Your task to perform on an android device: toggle improve location accuracy Image 0: 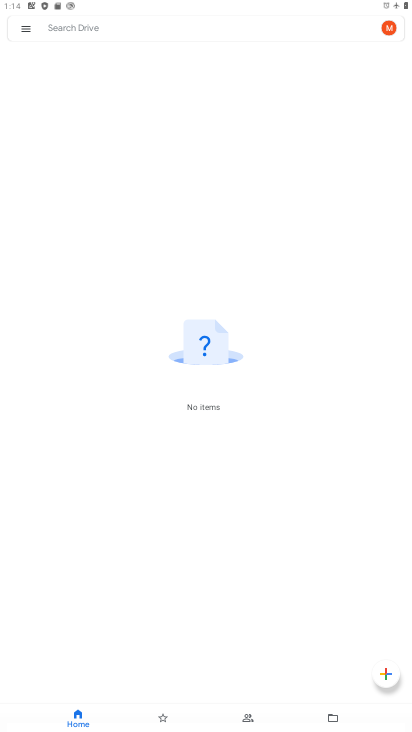
Step 0: press home button
Your task to perform on an android device: toggle improve location accuracy Image 1: 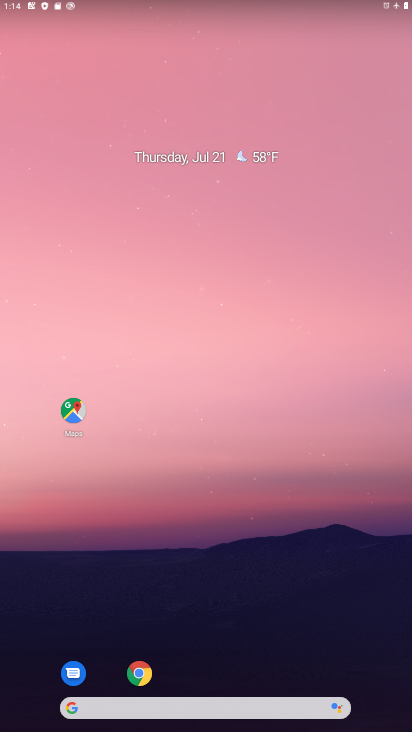
Step 1: drag from (240, 666) to (235, 200)
Your task to perform on an android device: toggle improve location accuracy Image 2: 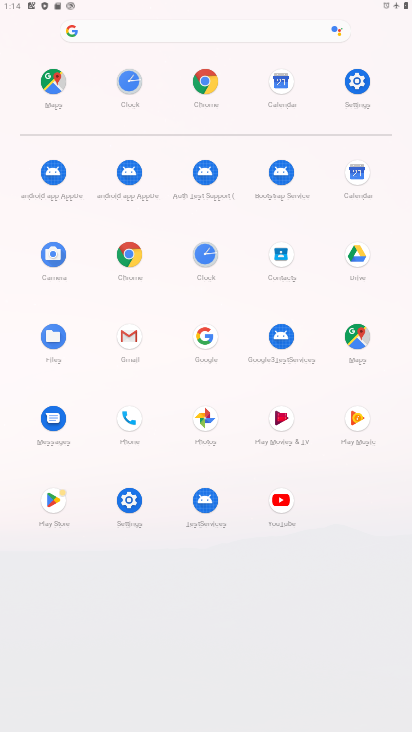
Step 2: click (355, 83)
Your task to perform on an android device: toggle improve location accuracy Image 3: 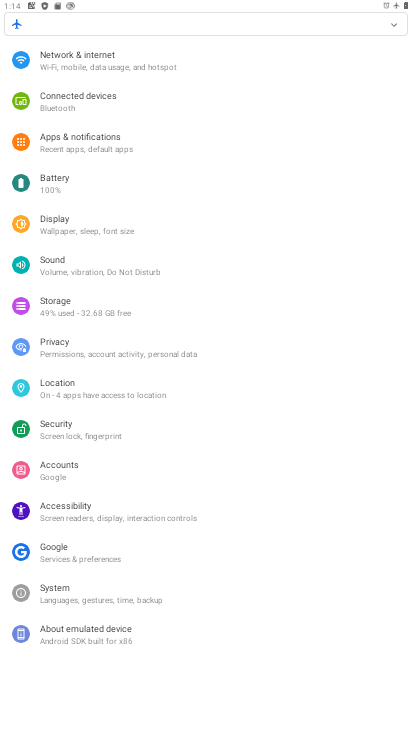
Step 3: click (105, 374)
Your task to perform on an android device: toggle improve location accuracy Image 4: 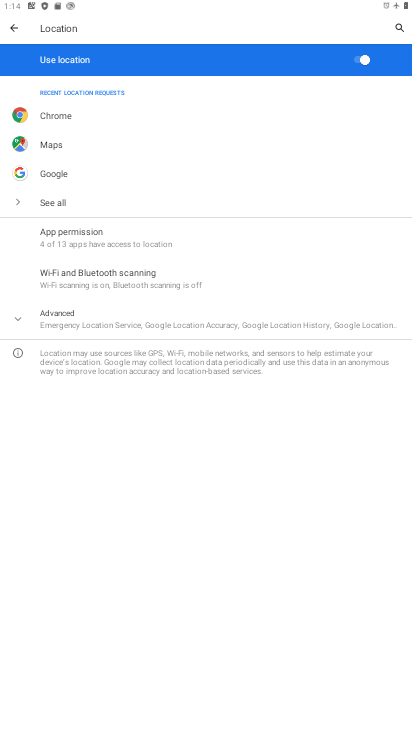
Step 4: click (143, 318)
Your task to perform on an android device: toggle improve location accuracy Image 5: 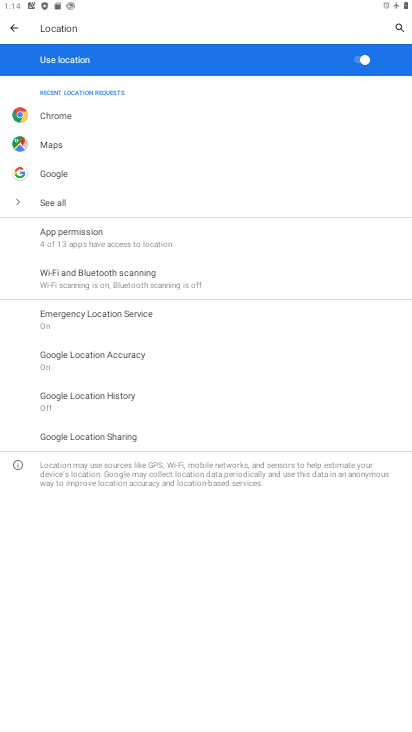
Step 5: click (150, 357)
Your task to perform on an android device: toggle improve location accuracy Image 6: 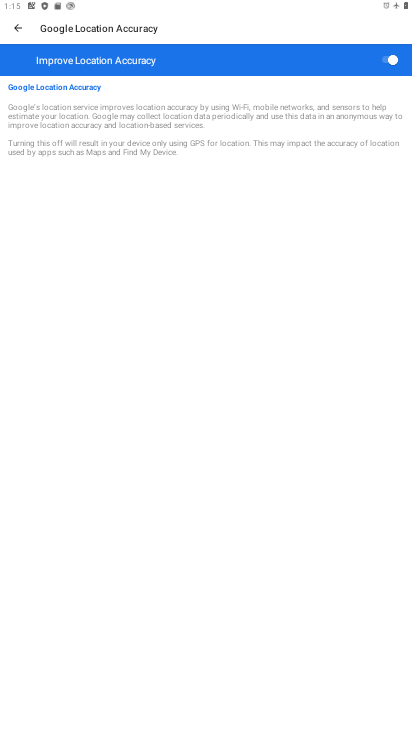
Step 6: task complete